Your task to perform on an android device: find which apps use the phone's location Image 0: 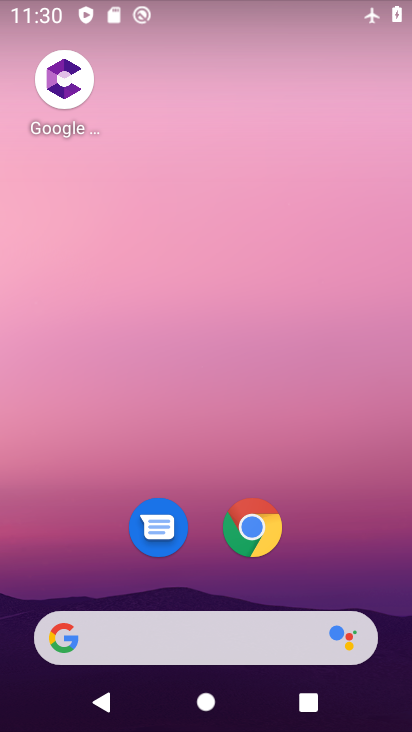
Step 0: drag from (358, 543) to (273, 260)
Your task to perform on an android device: find which apps use the phone's location Image 1: 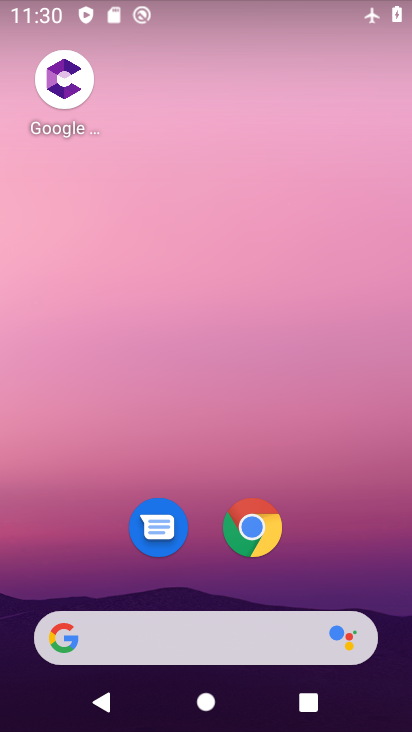
Step 1: drag from (390, 571) to (290, 85)
Your task to perform on an android device: find which apps use the phone's location Image 2: 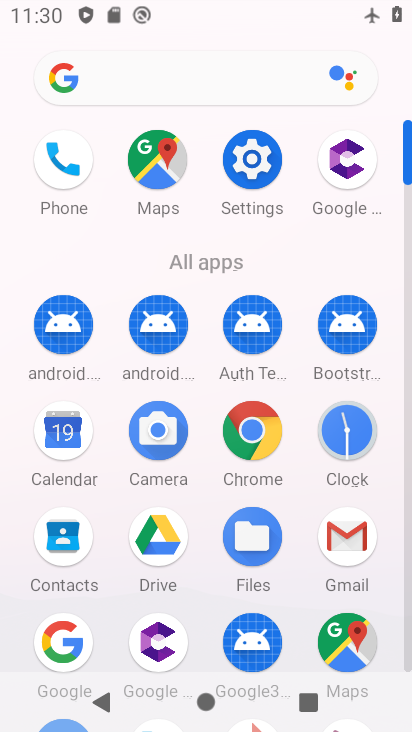
Step 2: click (248, 173)
Your task to perform on an android device: find which apps use the phone's location Image 3: 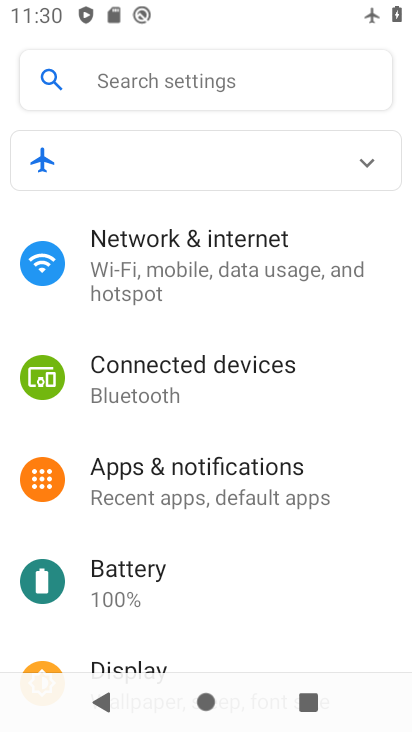
Step 3: drag from (230, 625) to (213, 120)
Your task to perform on an android device: find which apps use the phone's location Image 4: 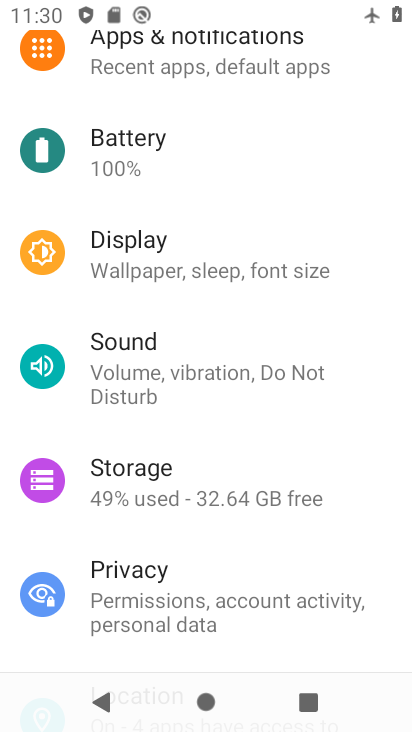
Step 4: drag from (249, 539) to (248, 88)
Your task to perform on an android device: find which apps use the phone's location Image 5: 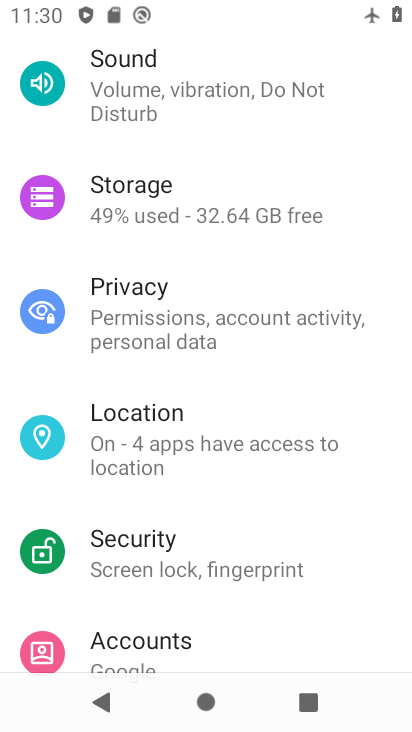
Step 5: click (250, 419)
Your task to perform on an android device: find which apps use the phone's location Image 6: 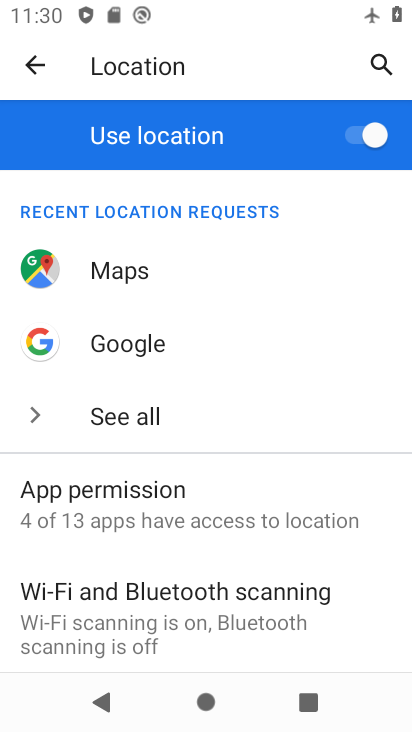
Step 6: click (254, 505)
Your task to perform on an android device: find which apps use the phone's location Image 7: 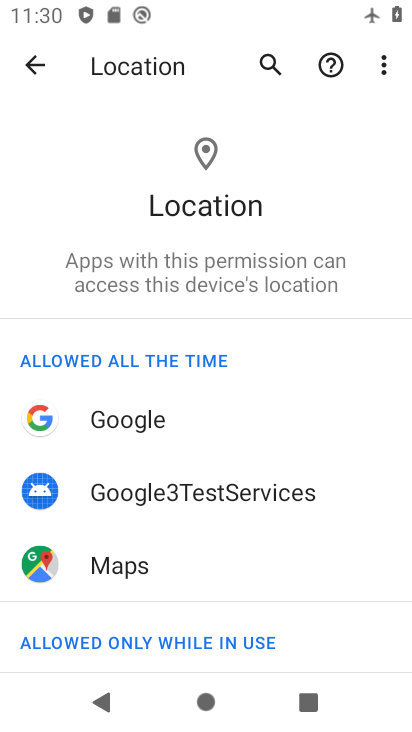
Step 7: task complete